Your task to perform on an android device: open app "Pinterest" Image 0: 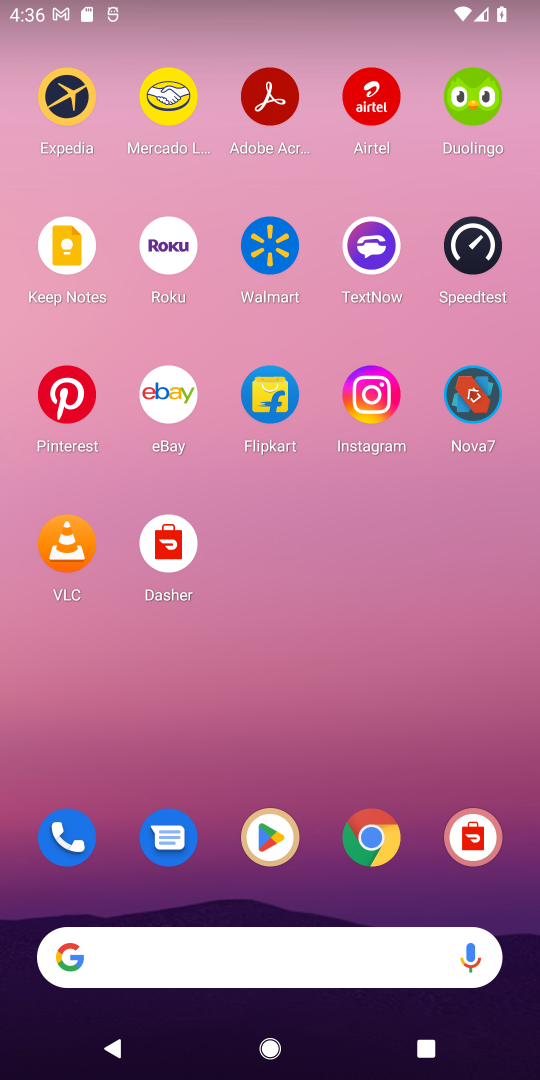
Step 0: press home button
Your task to perform on an android device: open app "Pinterest" Image 1: 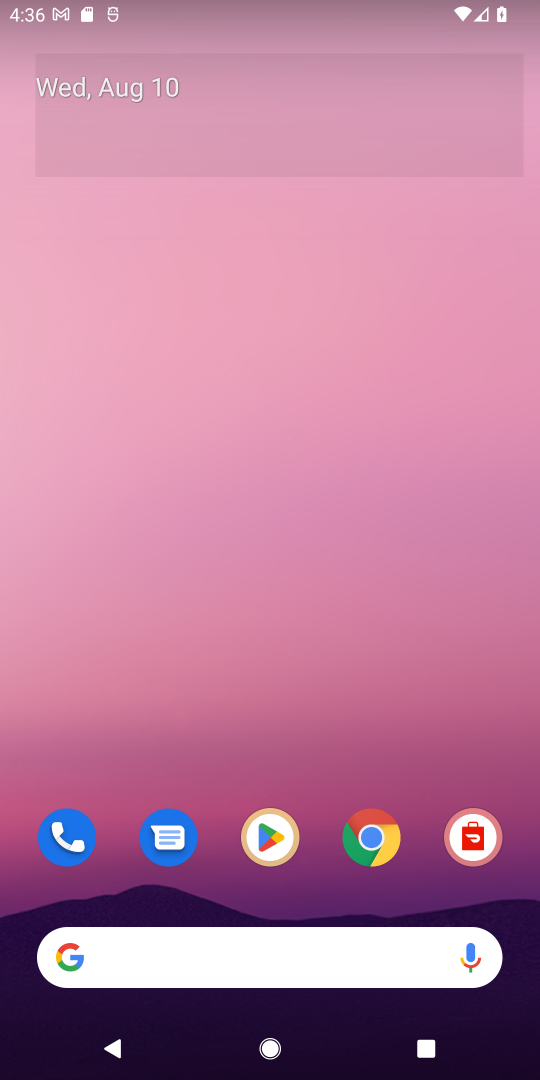
Step 1: click (258, 833)
Your task to perform on an android device: open app "Pinterest" Image 2: 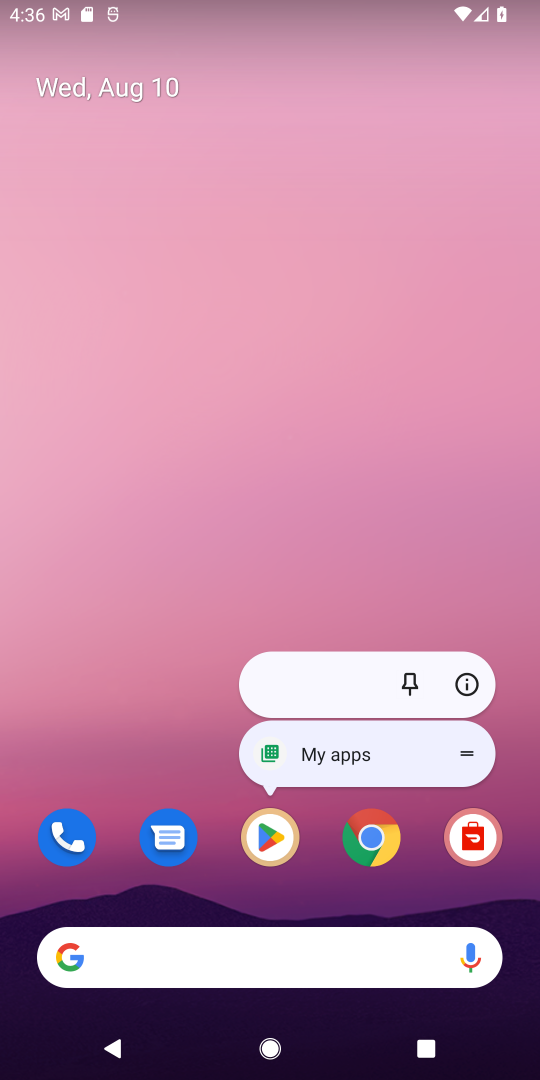
Step 2: click (258, 833)
Your task to perform on an android device: open app "Pinterest" Image 3: 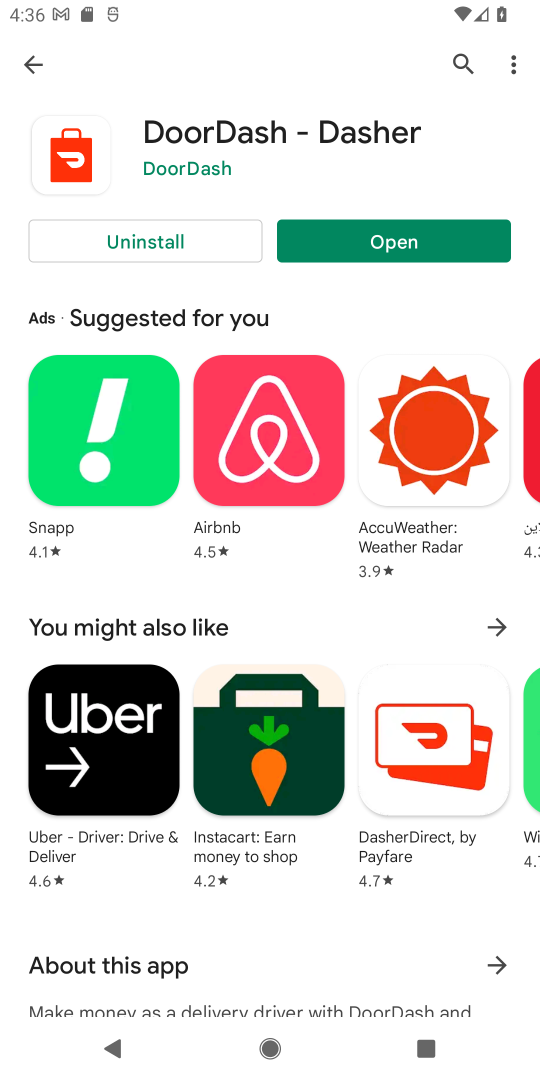
Step 3: click (461, 57)
Your task to perform on an android device: open app "Pinterest" Image 4: 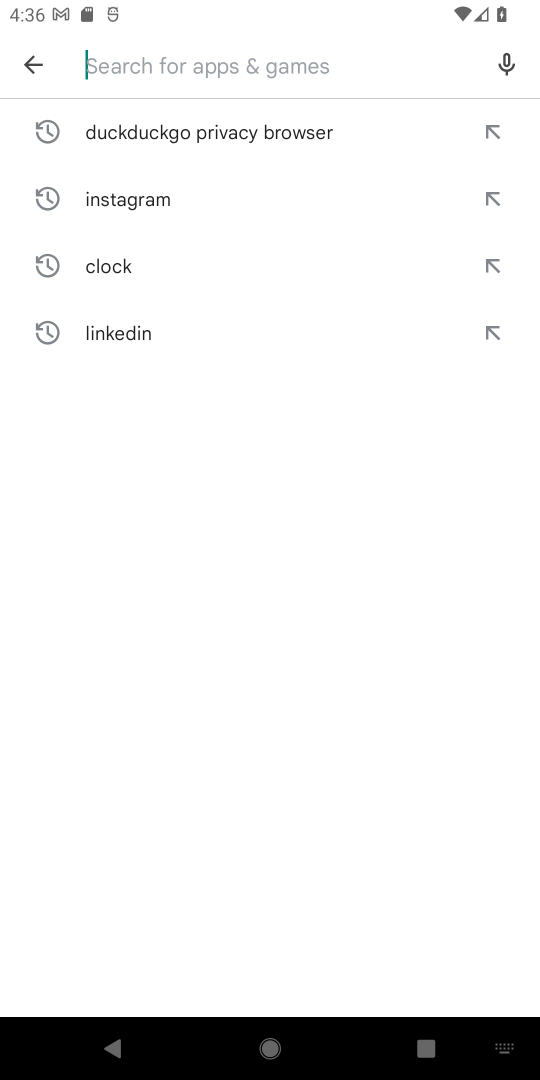
Step 4: type "Pinterest"
Your task to perform on an android device: open app "Pinterest" Image 5: 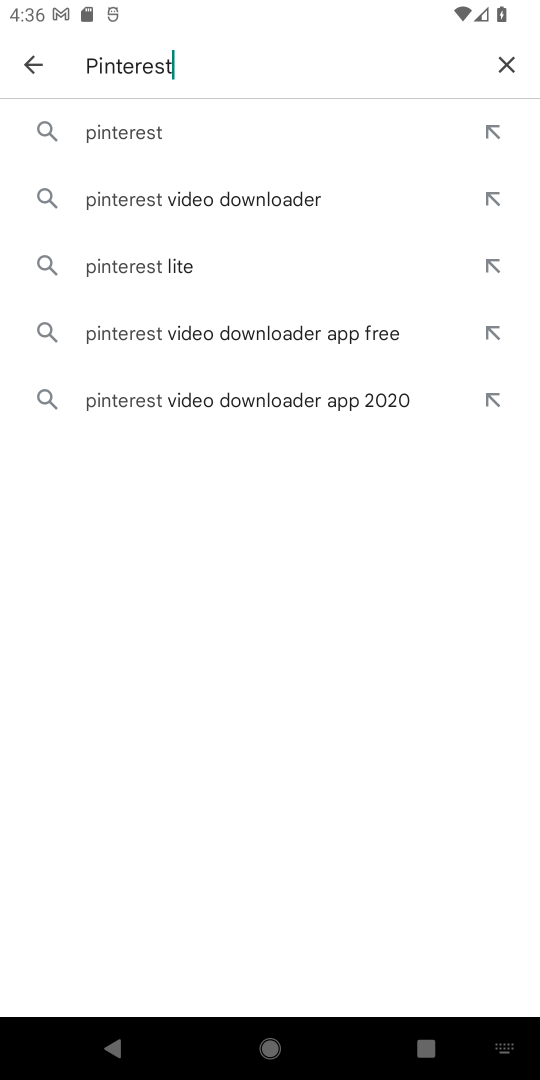
Step 5: click (96, 139)
Your task to perform on an android device: open app "Pinterest" Image 6: 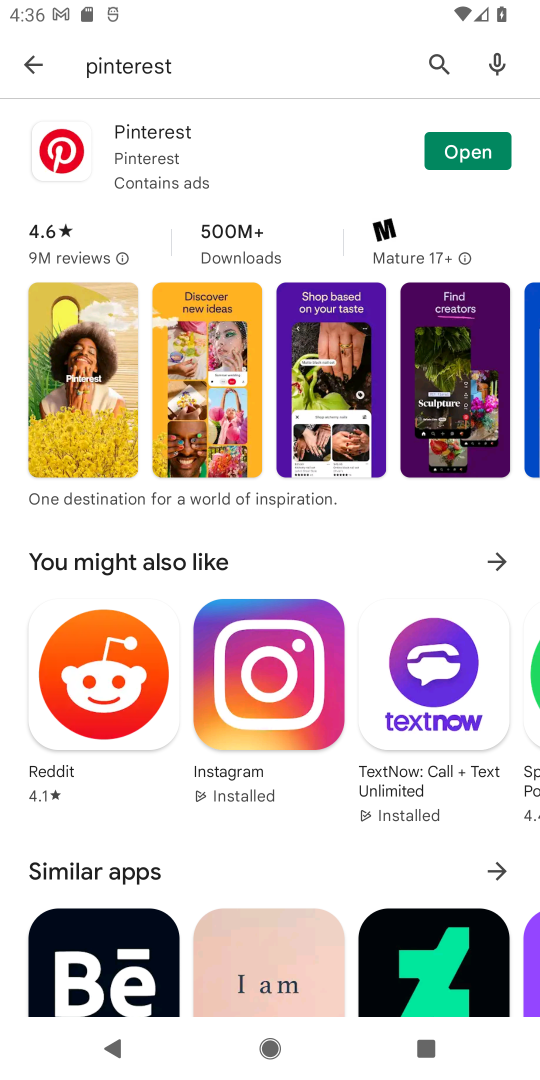
Step 6: click (450, 149)
Your task to perform on an android device: open app "Pinterest" Image 7: 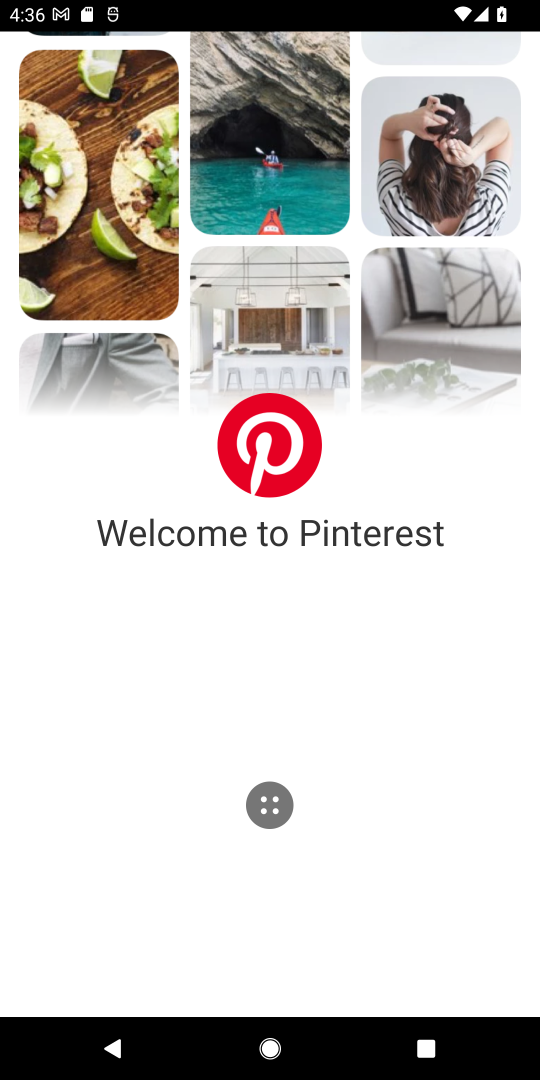
Step 7: task complete